Your task to perform on an android device: change notification settings in the gmail app Image 0: 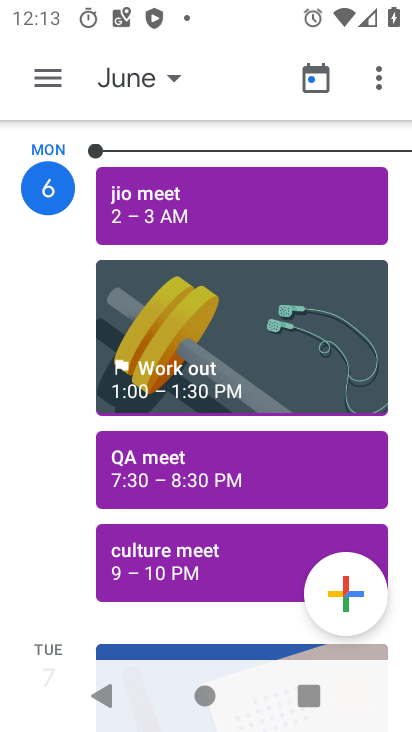
Step 0: press home button
Your task to perform on an android device: change notification settings in the gmail app Image 1: 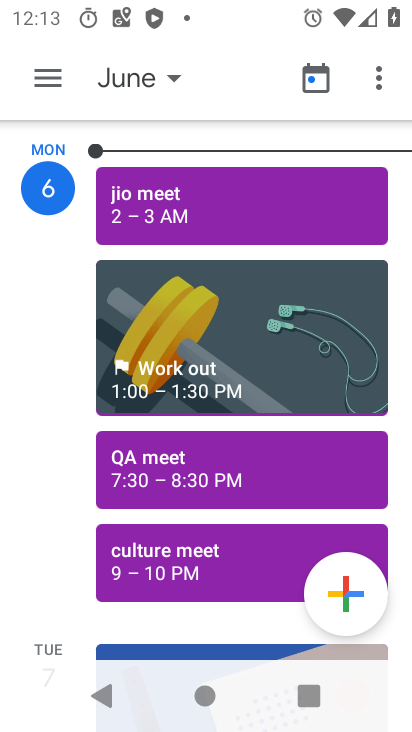
Step 1: press home button
Your task to perform on an android device: change notification settings in the gmail app Image 2: 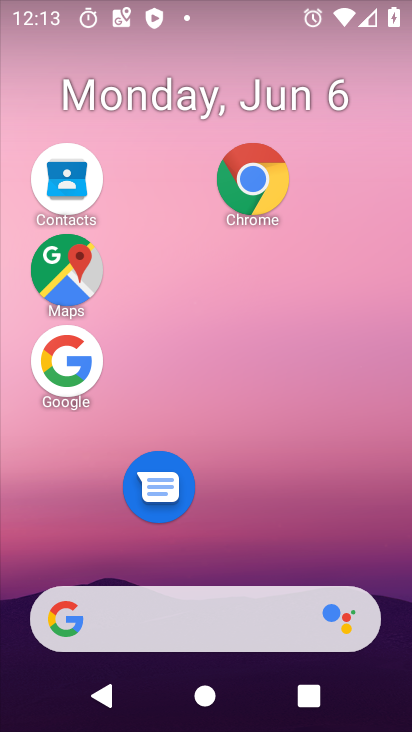
Step 2: drag from (239, 592) to (102, 44)
Your task to perform on an android device: change notification settings in the gmail app Image 3: 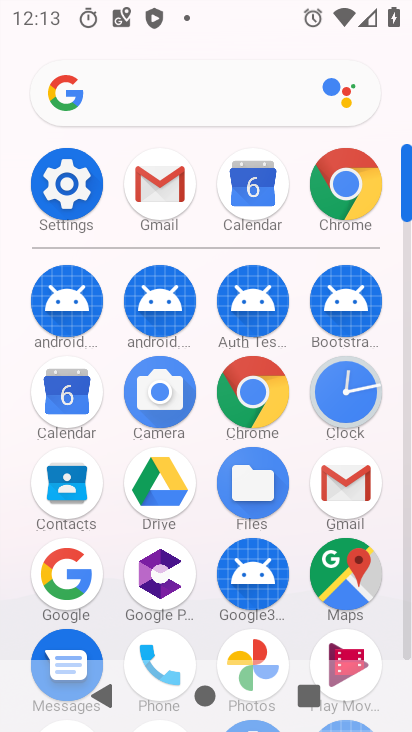
Step 3: click (344, 486)
Your task to perform on an android device: change notification settings in the gmail app Image 4: 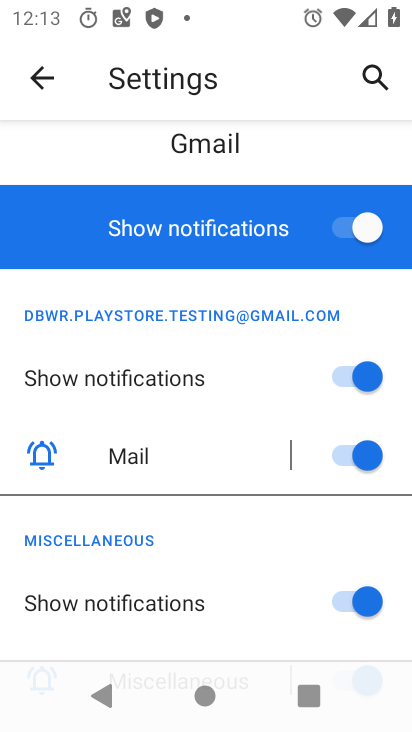
Step 4: task complete